Your task to perform on an android device: Check the settings for the Amazon Prime Video app Image 0: 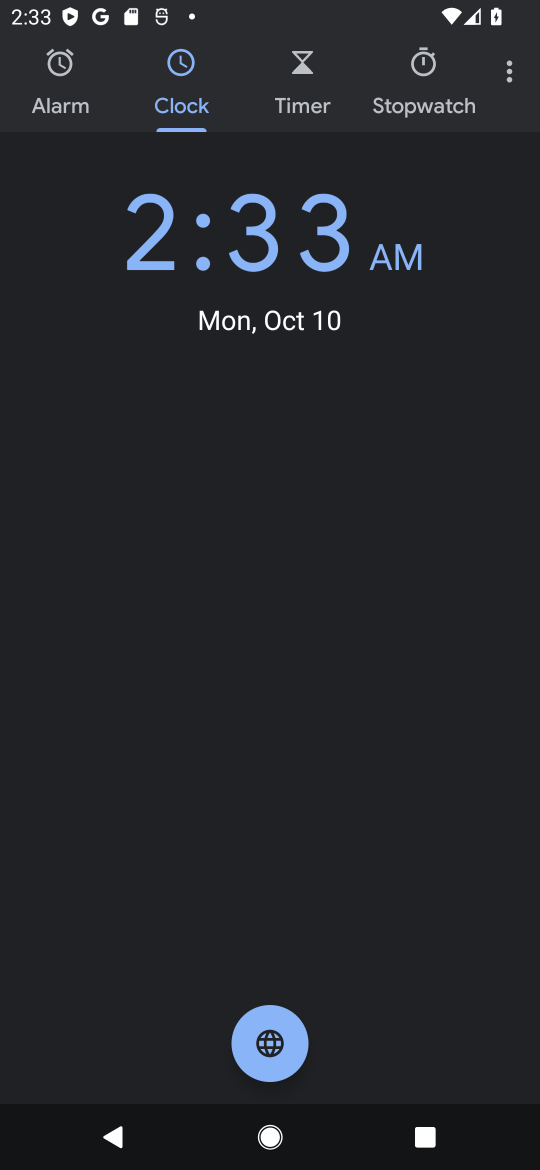
Step 0: press home button
Your task to perform on an android device: Check the settings for the Amazon Prime Video app Image 1: 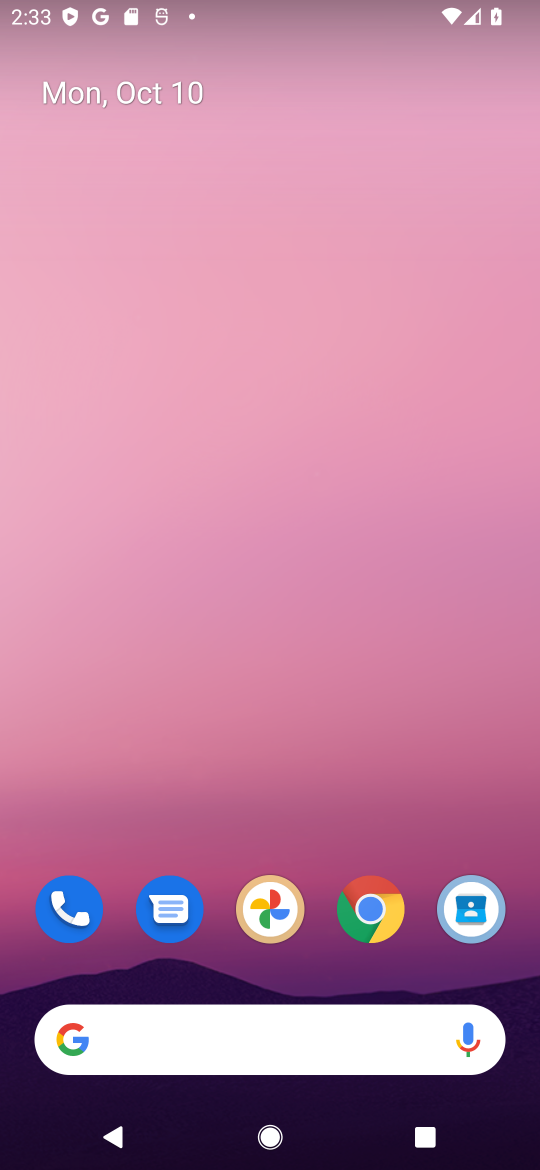
Step 1: drag from (419, 962) to (392, 273)
Your task to perform on an android device: Check the settings for the Amazon Prime Video app Image 2: 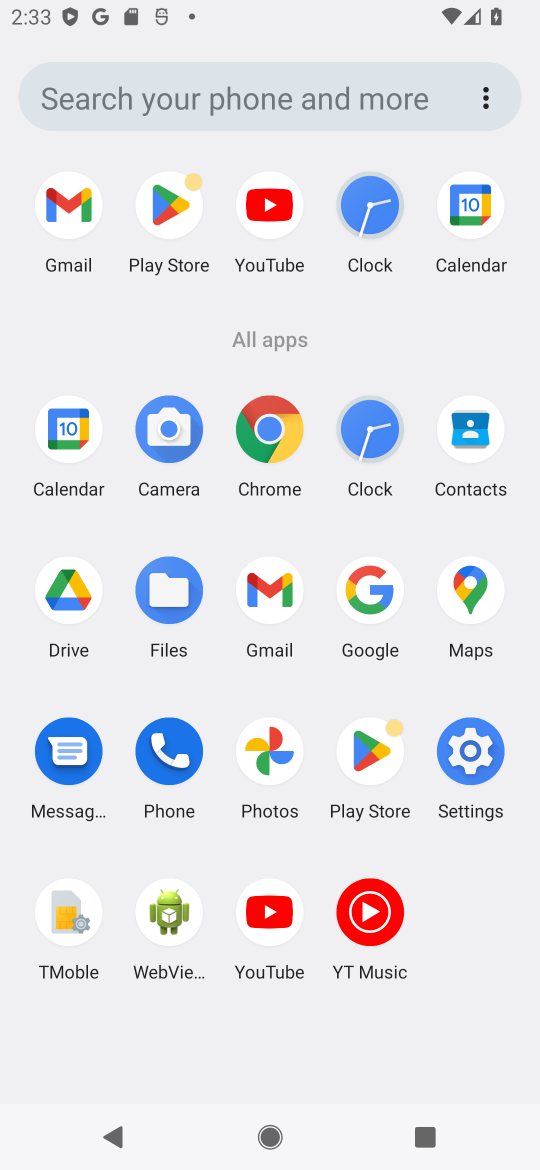
Step 2: click (372, 755)
Your task to perform on an android device: Check the settings for the Amazon Prime Video app Image 3: 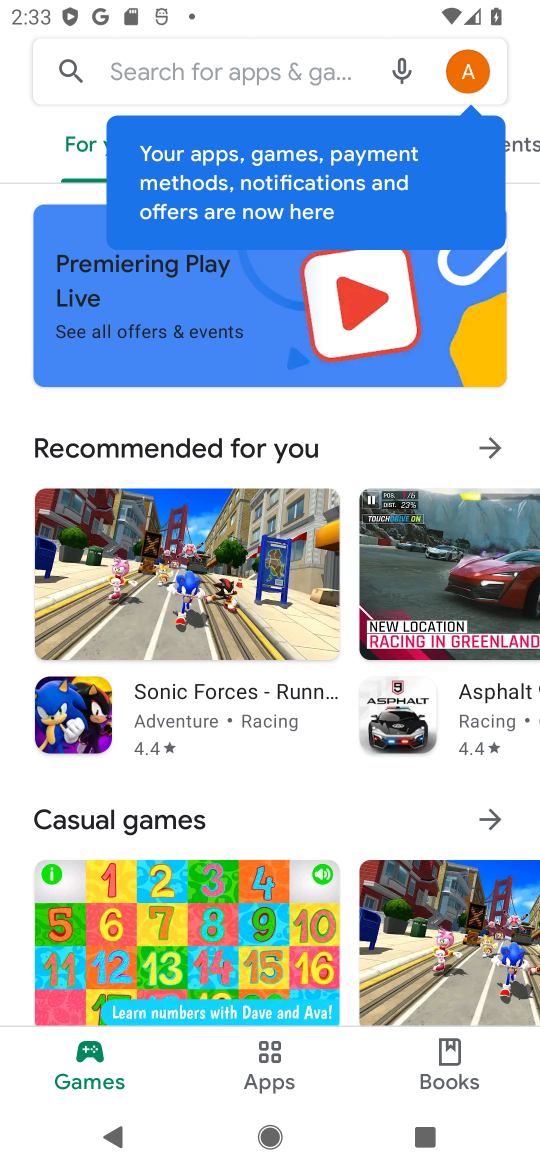
Step 3: click (96, 73)
Your task to perform on an android device: Check the settings for the Amazon Prime Video app Image 4: 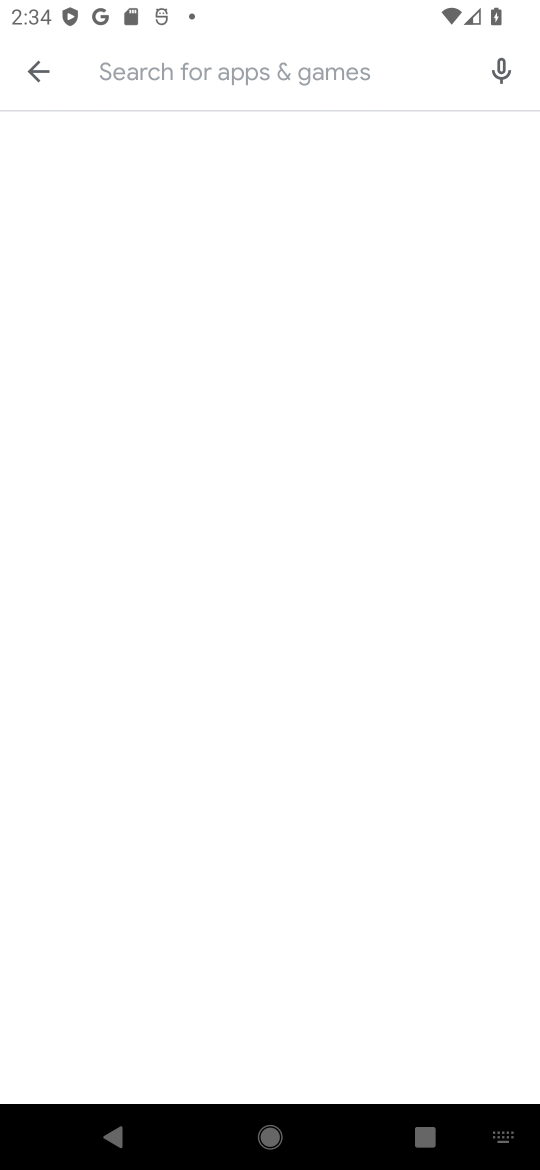
Step 4: type "Amazon Prime Video app"
Your task to perform on an android device: Check the settings for the Amazon Prime Video app Image 5: 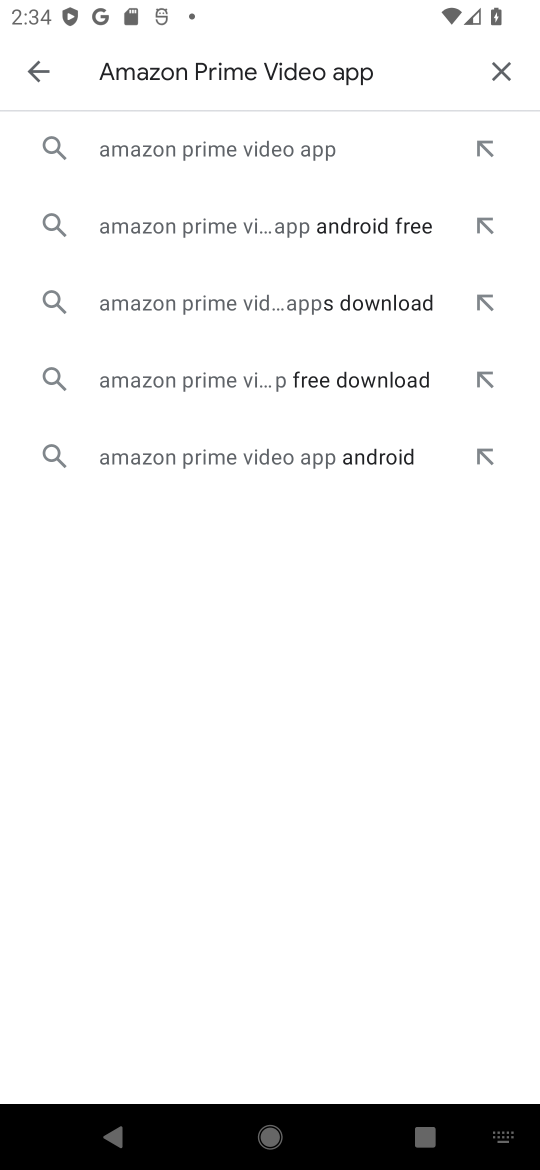
Step 5: click (165, 142)
Your task to perform on an android device: Check the settings for the Amazon Prime Video app Image 6: 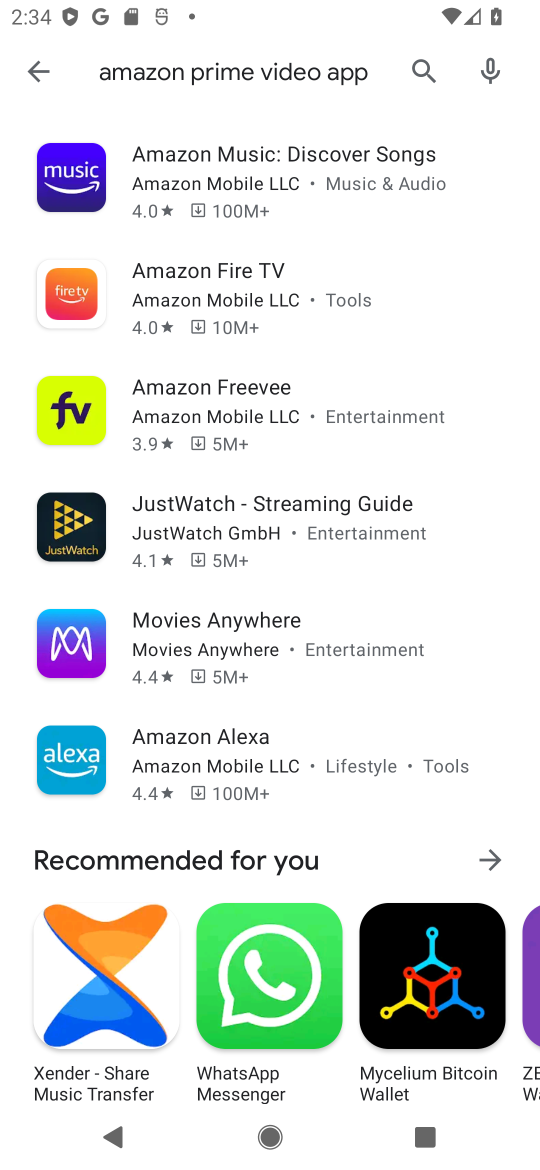
Step 6: drag from (310, 679) to (329, 272)
Your task to perform on an android device: Check the settings for the Amazon Prime Video app Image 7: 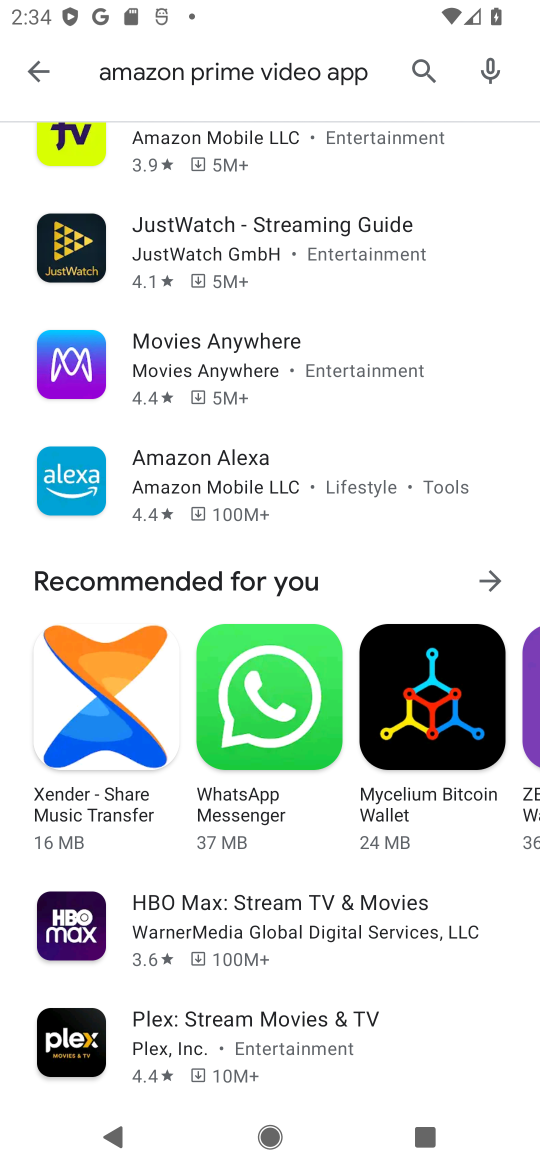
Step 7: drag from (307, 929) to (265, 292)
Your task to perform on an android device: Check the settings for the Amazon Prime Video app Image 8: 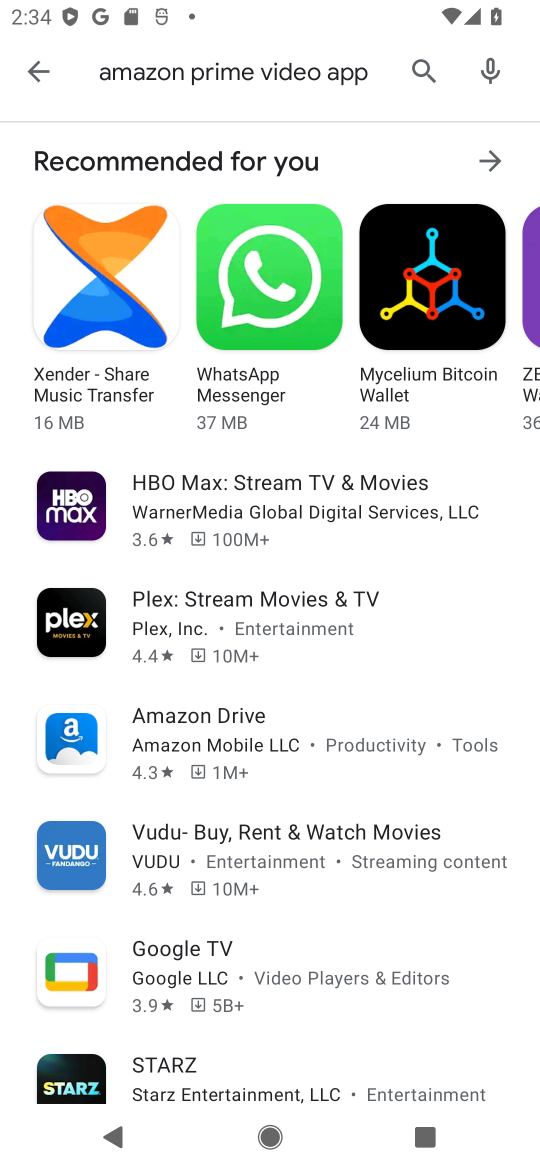
Step 8: drag from (243, 897) to (236, 426)
Your task to perform on an android device: Check the settings for the Amazon Prime Video app Image 9: 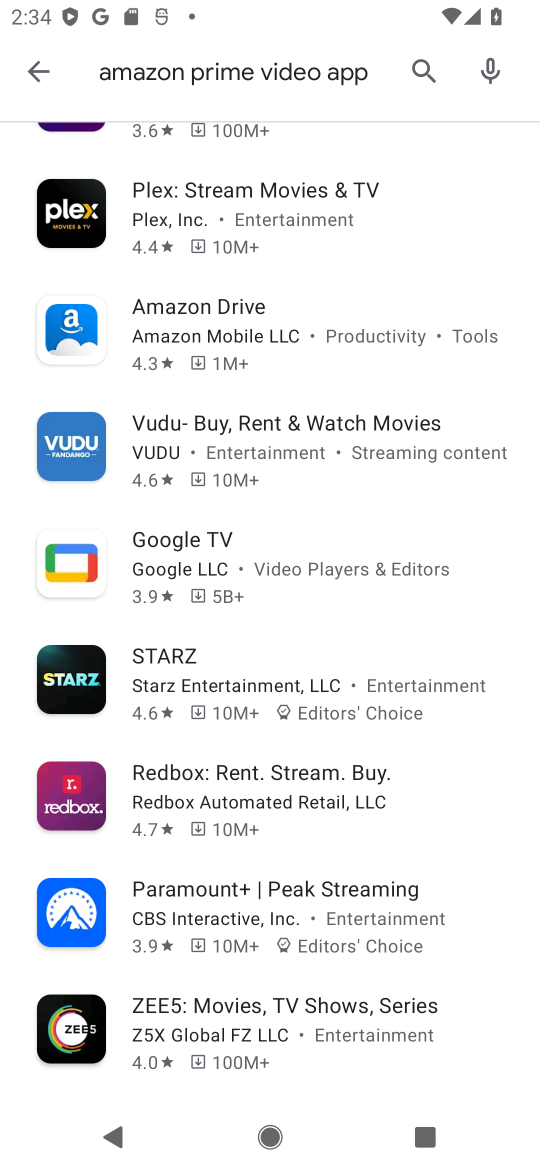
Step 9: drag from (256, 1010) to (232, 215)
Your task to perform on an android device: Check the settings for the Amazon Prime Video app Image 10: 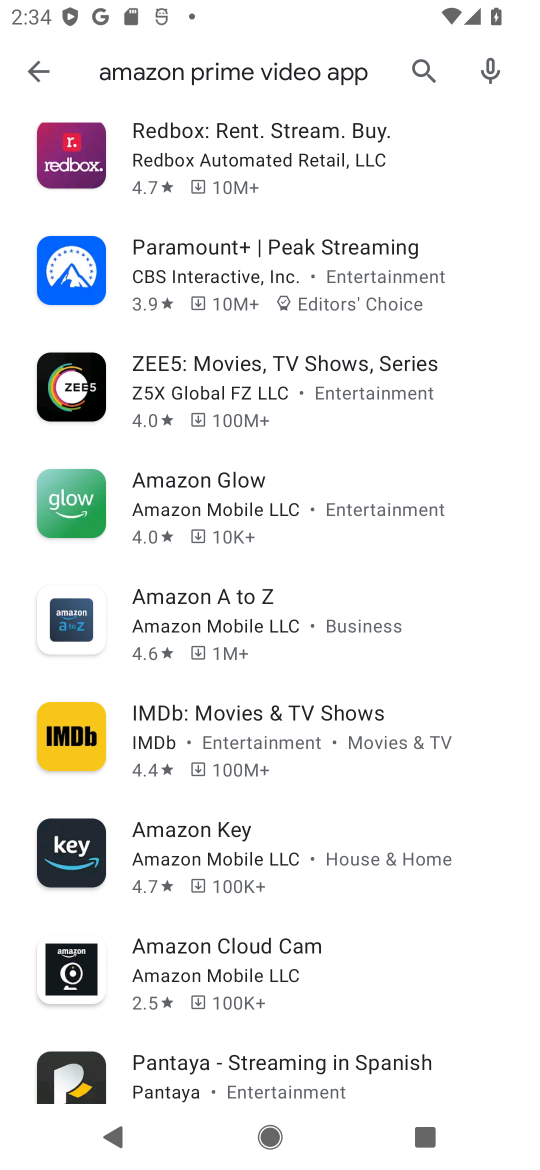
Step 10: drag from (239, 521) to (212, 1041)
Your task to perform on an android device: Check the settings for the Amazon Prime Video app Image 11: 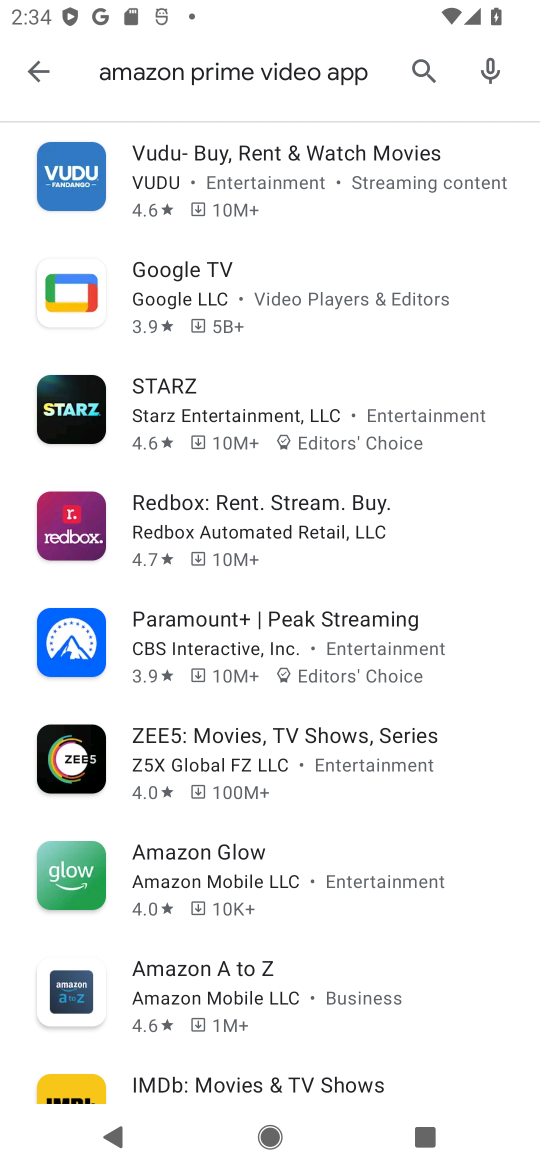
Step 11: drag from (285, 466) to (269, 998)
Your task to perform on an android device: Check the settings for the Amazon Prime Video app Image 12: 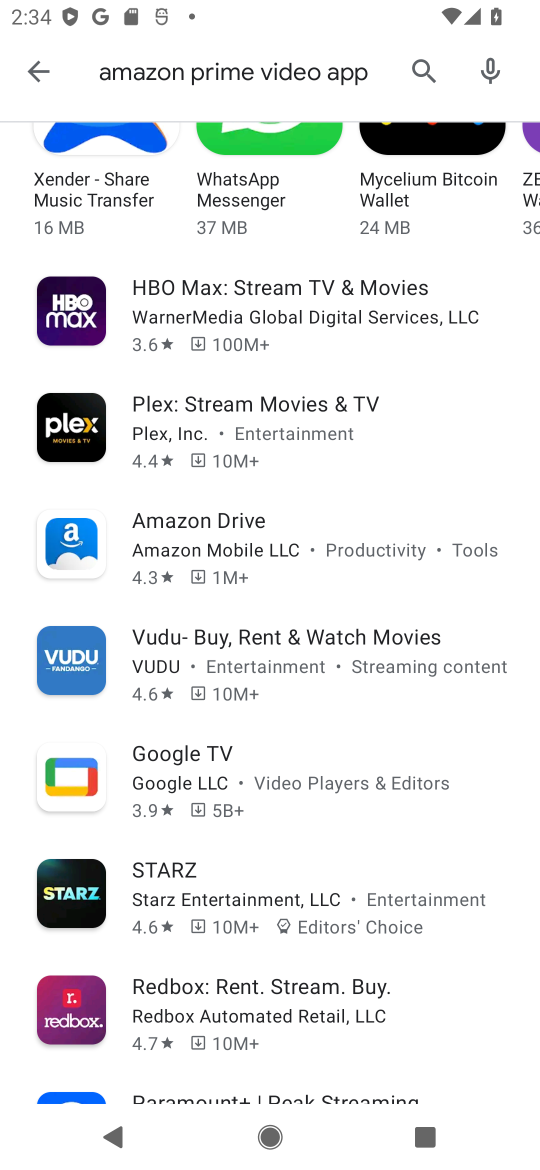
Step 12: drag from (266, 466) to (312, 1000)
Your task to perform on an android device: Check the settings for the Amazon Prime Video app Image 13: 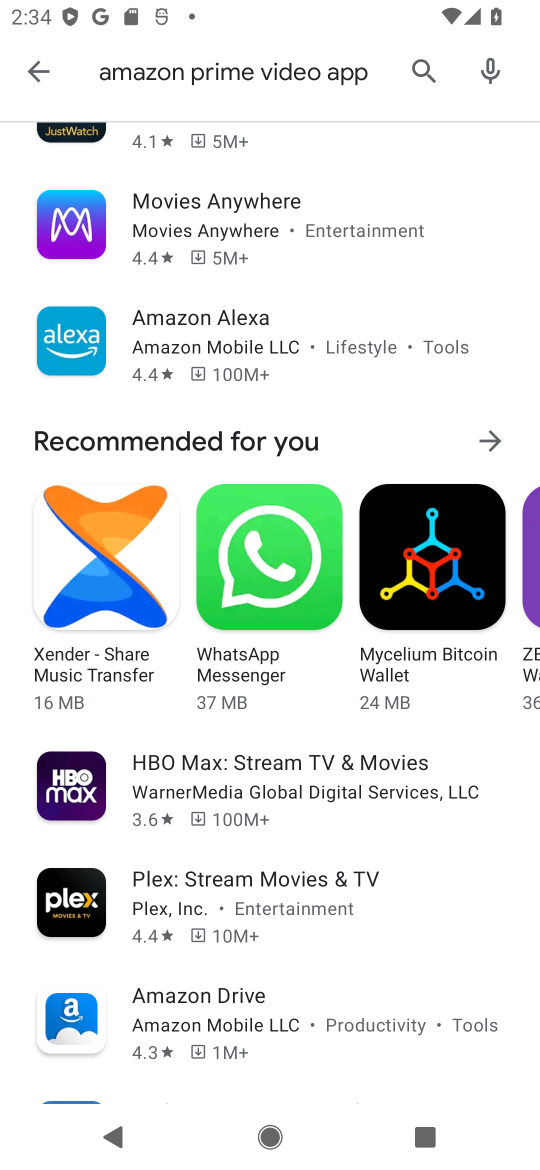
Step 13: drag from (312, 341) to (254, 859)
Your task to perform on an android device: Check the settings for the Amazon Prime Video app Image 14: 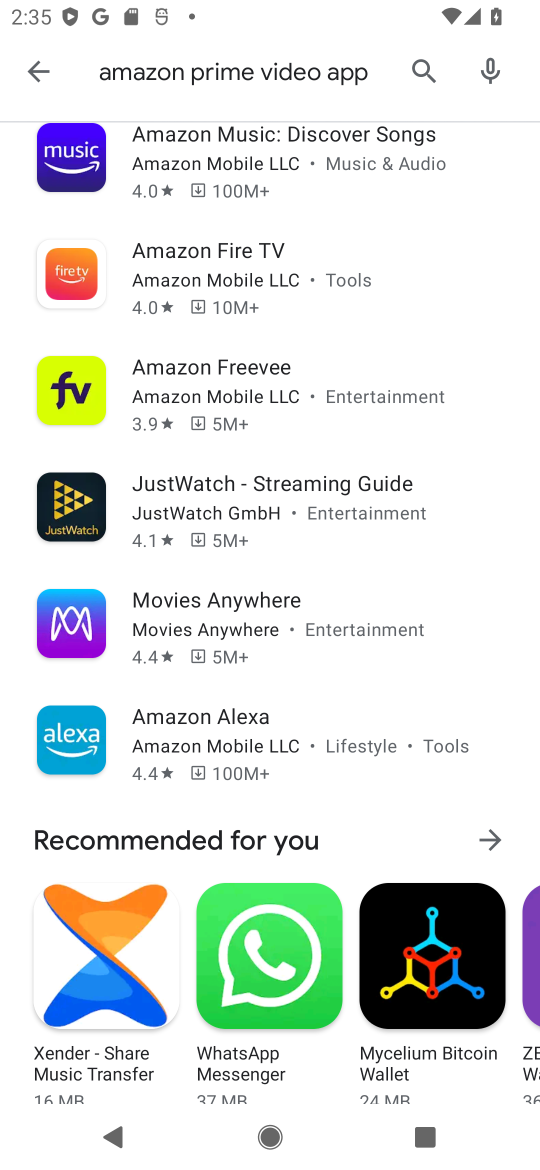
Step 14: drag from (298, 326) to (278, 647)
Your task to perform on an android device: Check the settings for the Amazon Prime Video app Image 15: 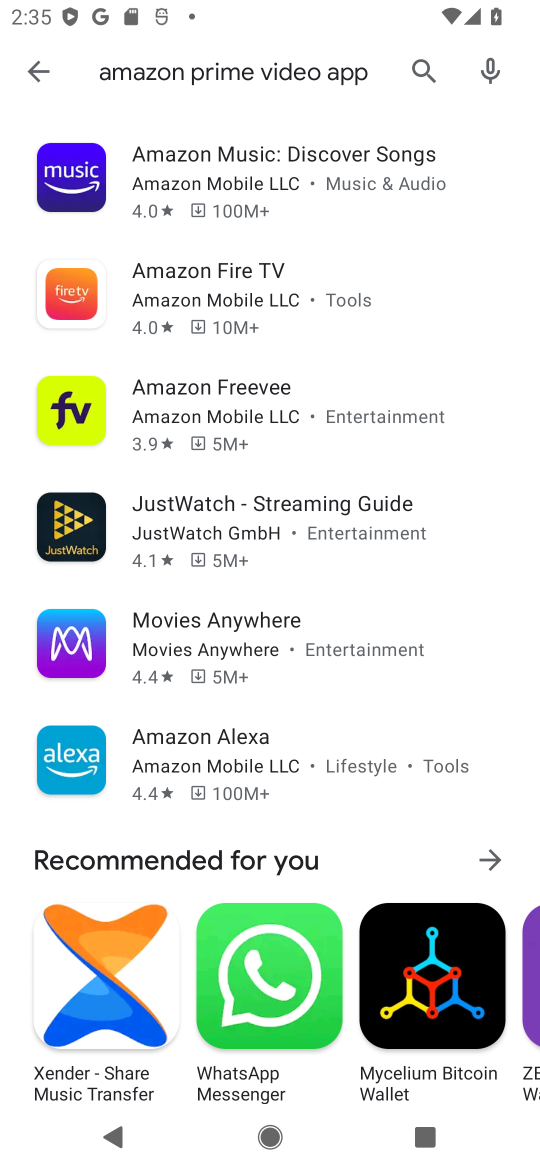
Step 15: click (424, 70)
Your task to perform on an android device: Check the settings for the Amazon Prime Video app Image 16: 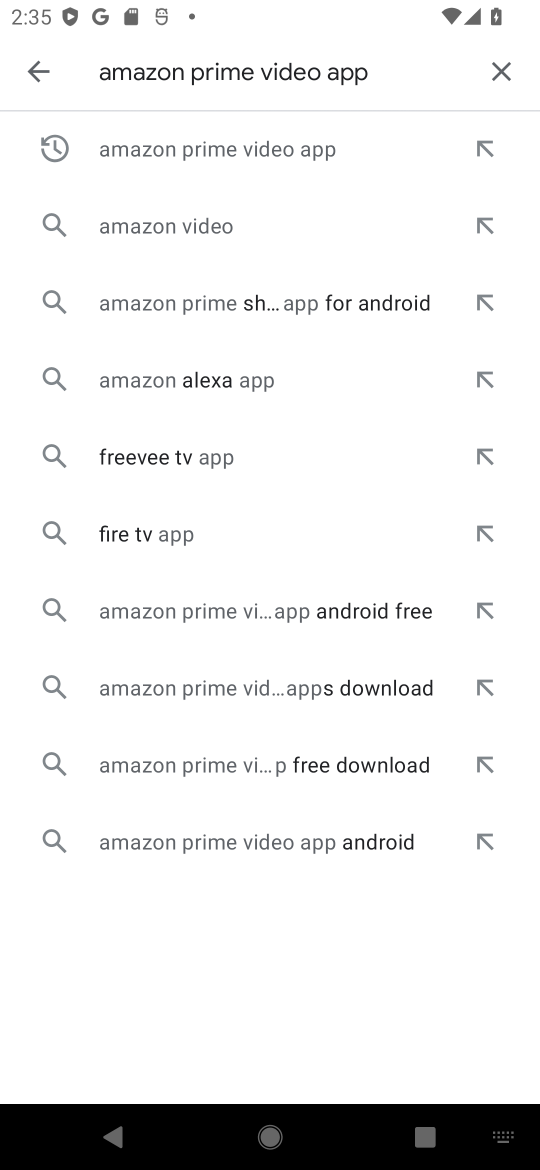
Step 16: click (184, 699)
Your task to perform on an android device: Check the settings for the Amazon Prime Video app Image 17: 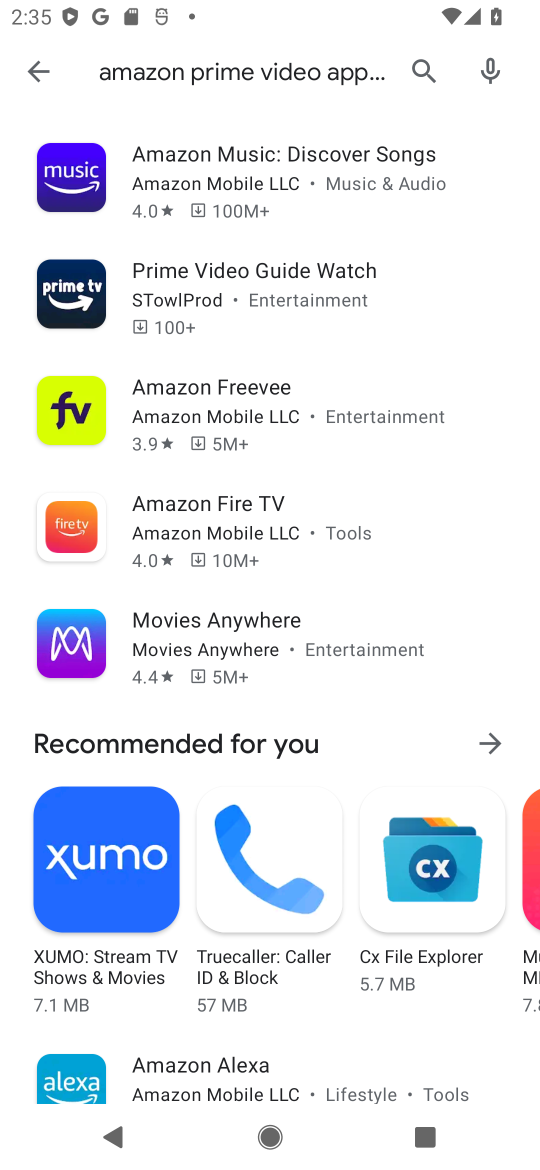
Step 17: task complete